Your task to perform on an android device: toggle improve location accuracy Image 0: 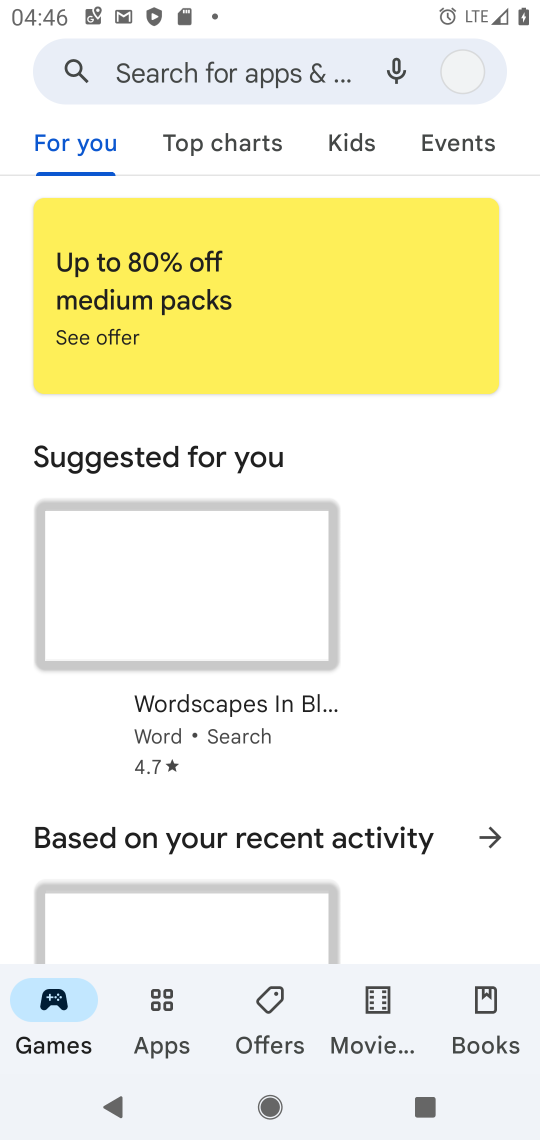
Step 0: press back button
Your task to perform on an android device: toggle improve location accuracy Image 1: 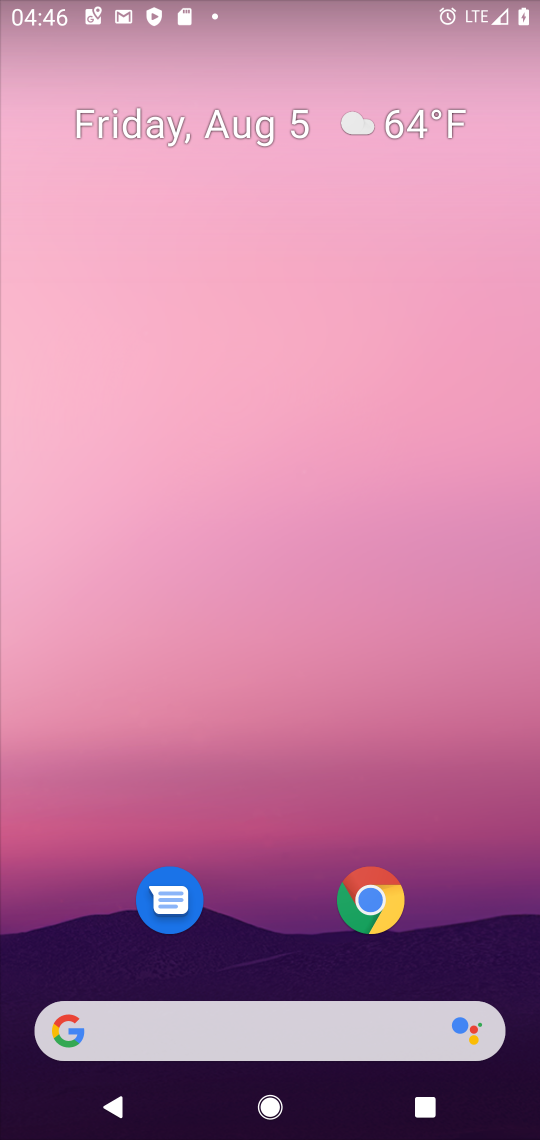
Step 1: press home button
Your task to perform on an android device: toggle improve location accuracy Image 2: 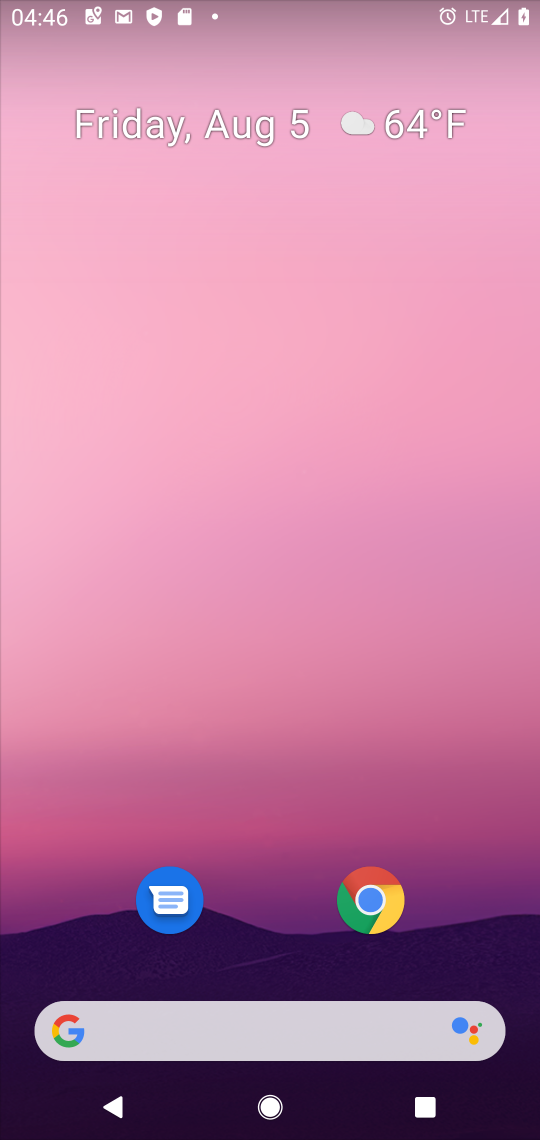
Step 2: drag from (249, 959) to (253, 150)
Your task to perform on an android device: toggle improve location accuracy Image 3: 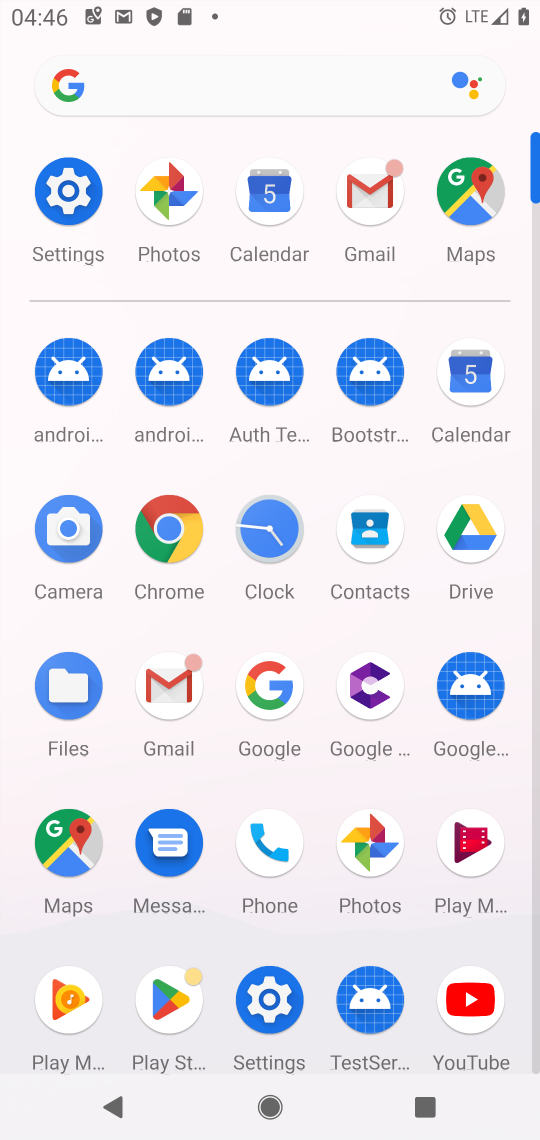
Step 3: click (64, 206)
Your task to perform on an android device: toggle improve location accuracy Image 4: 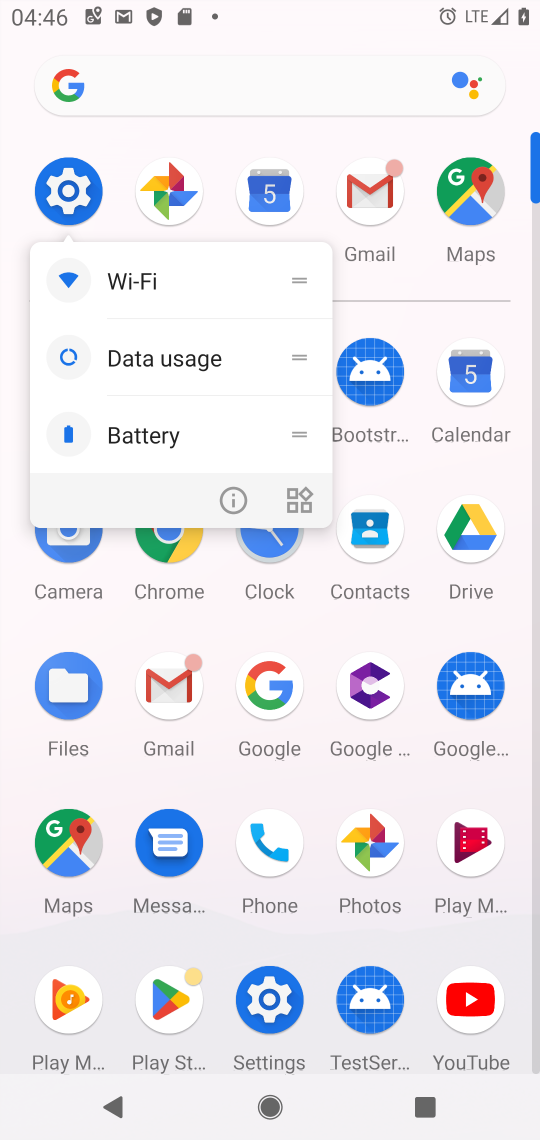
Step 4: click (49, 210)
Your task to perform on an android device: toggle improve location accuracy Image 5: 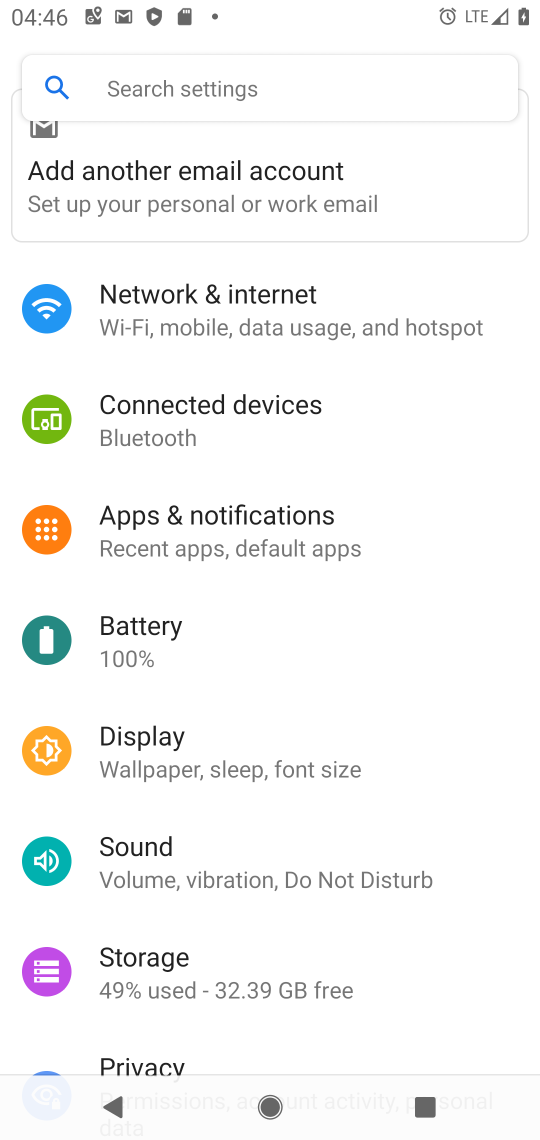
Step 5: drag from (199, 1010) to (304, 225)
Your task to perform on an android device: toggle improve location accuracy Image 6: 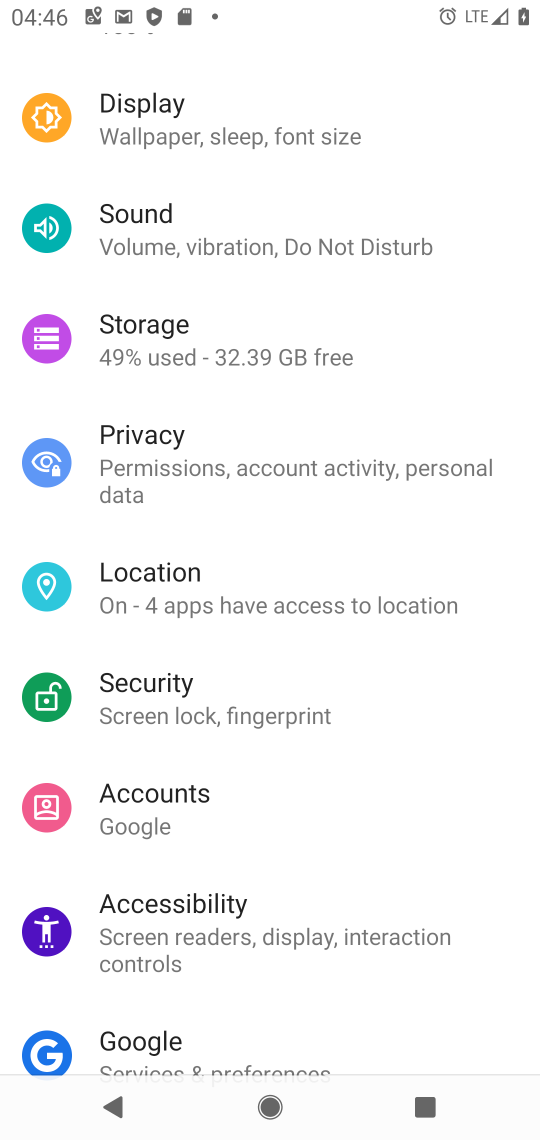
Step 6: click (183, 590)
Your task to perform on an android device: toggle improve location accuracy Image 7: 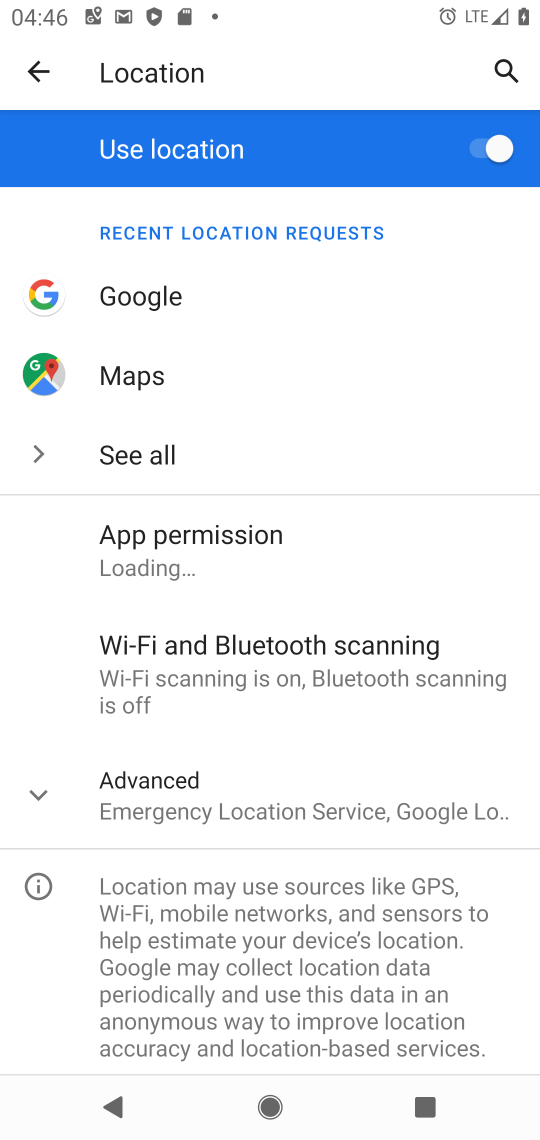
Step 7: click (278, 803)
Your task to perform on an android device: toggle improve location accuracy Image 8: 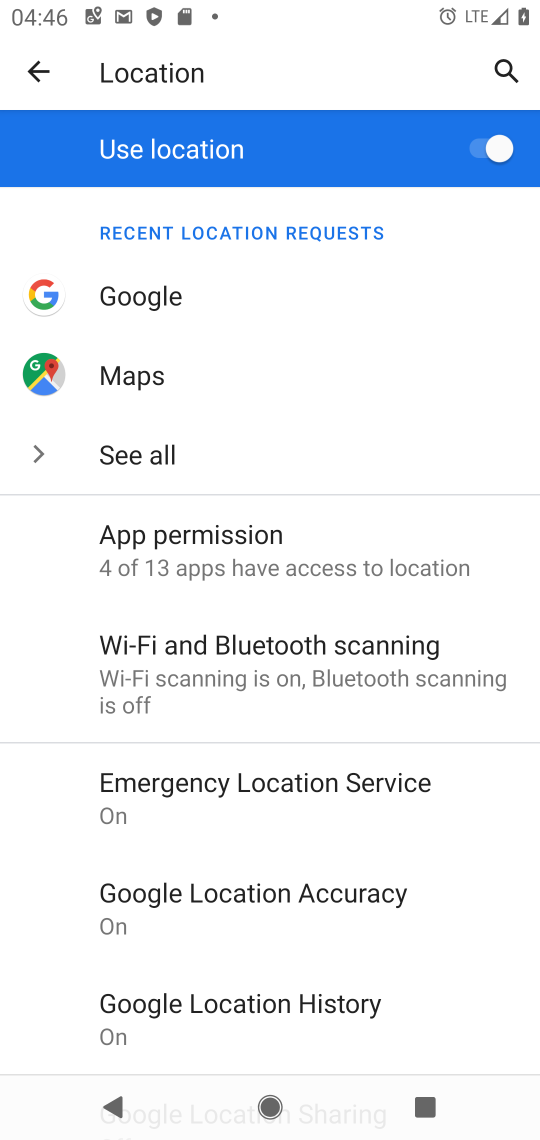
Step 8: click (249, 886)
Your task to perform on an android device: toggle improve location accuracy Image 9: 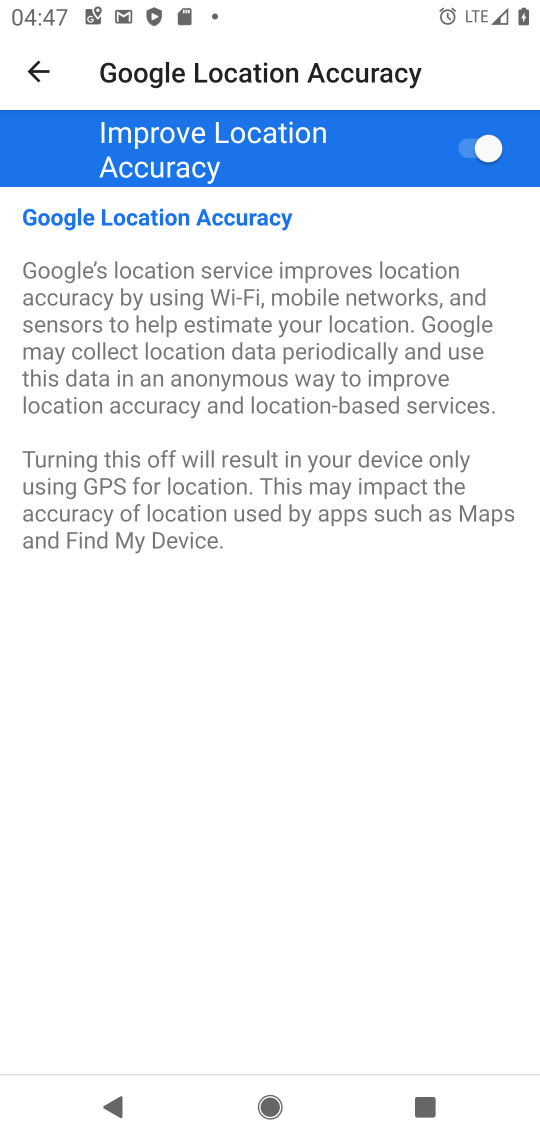
Step 9: click (476, 135)
Your task to perform on an android device: toggle improve location accuracy Image 10: 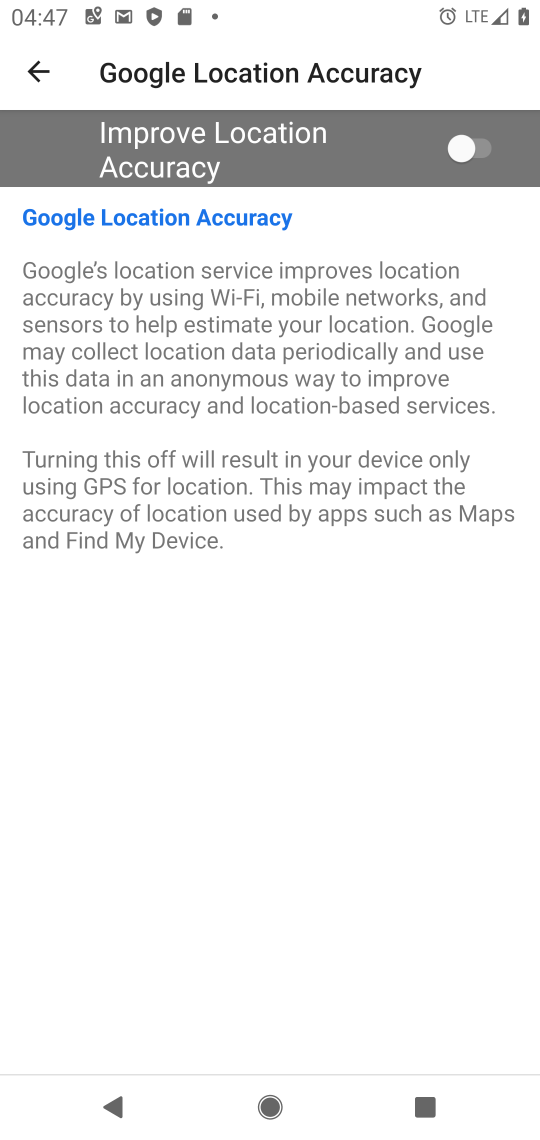
Step 10: task complete